Your task to perform on an android device: Add "usb-c to usb-b" to the cart on bestbuy.com, then select checkout. Image 0: 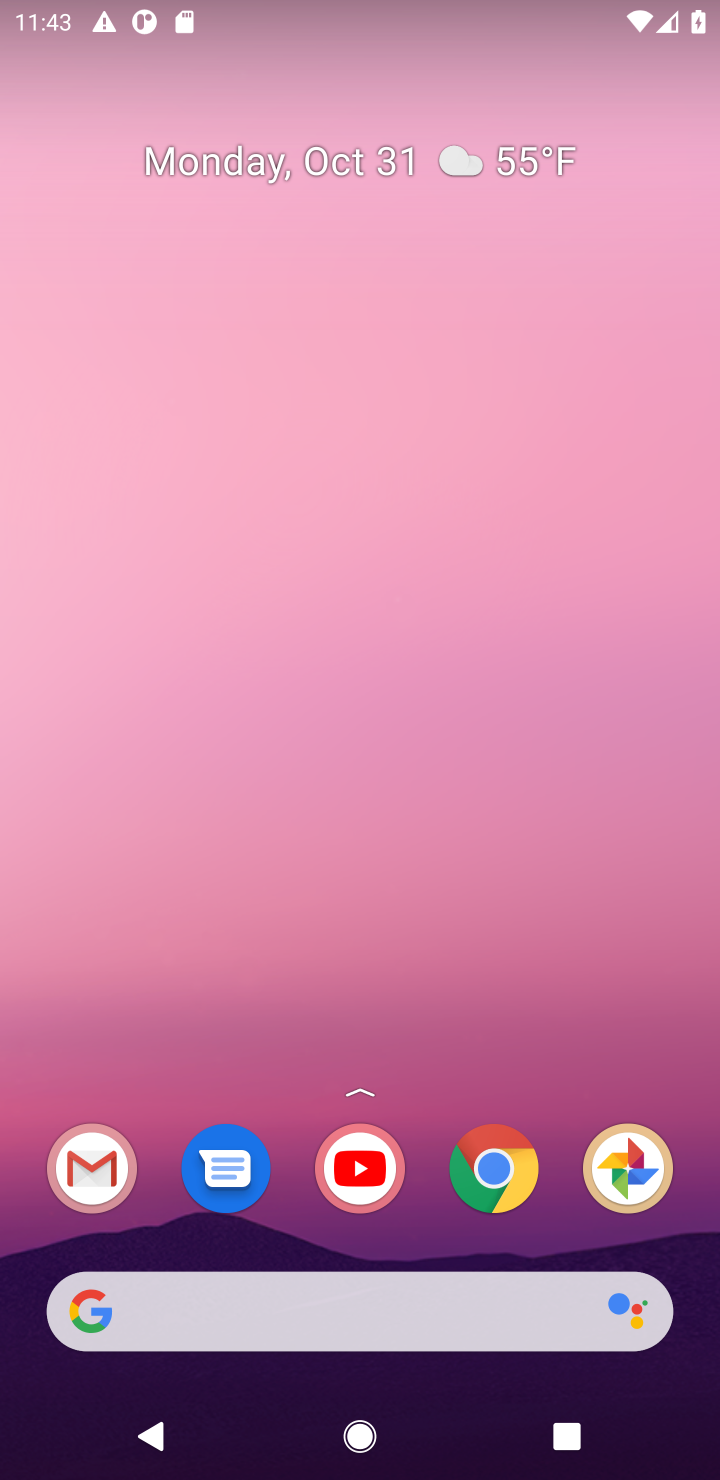
Step 0: click (482, 1174)
Your task to perform on an android device: Add "usb-c to usb-b" to the cart on bestbuy.com, then select checkout. Image 1: 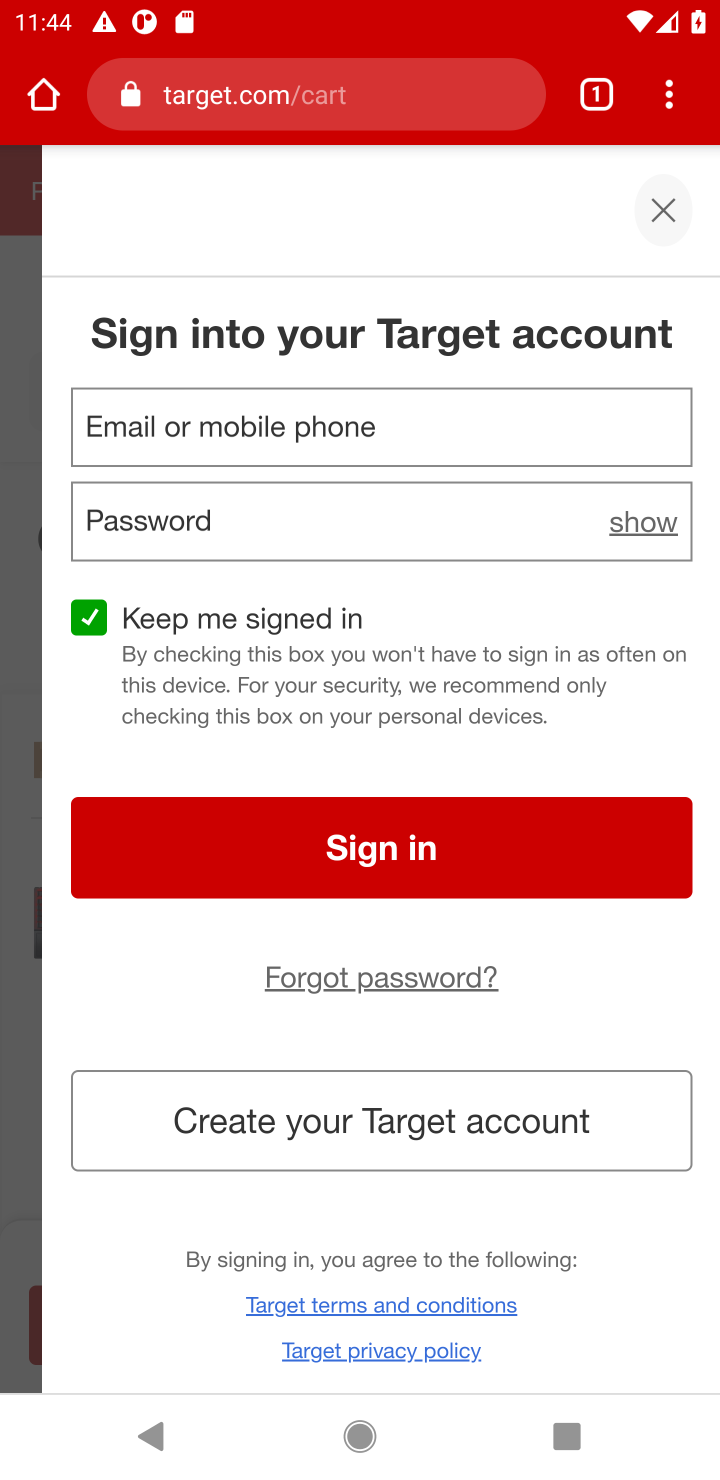
Step 1: click (229, 103)
Your task to perform on an android device: Add "usb-c to usb-b" to the cart on bestbuy.com, then select checkout. Image 2: 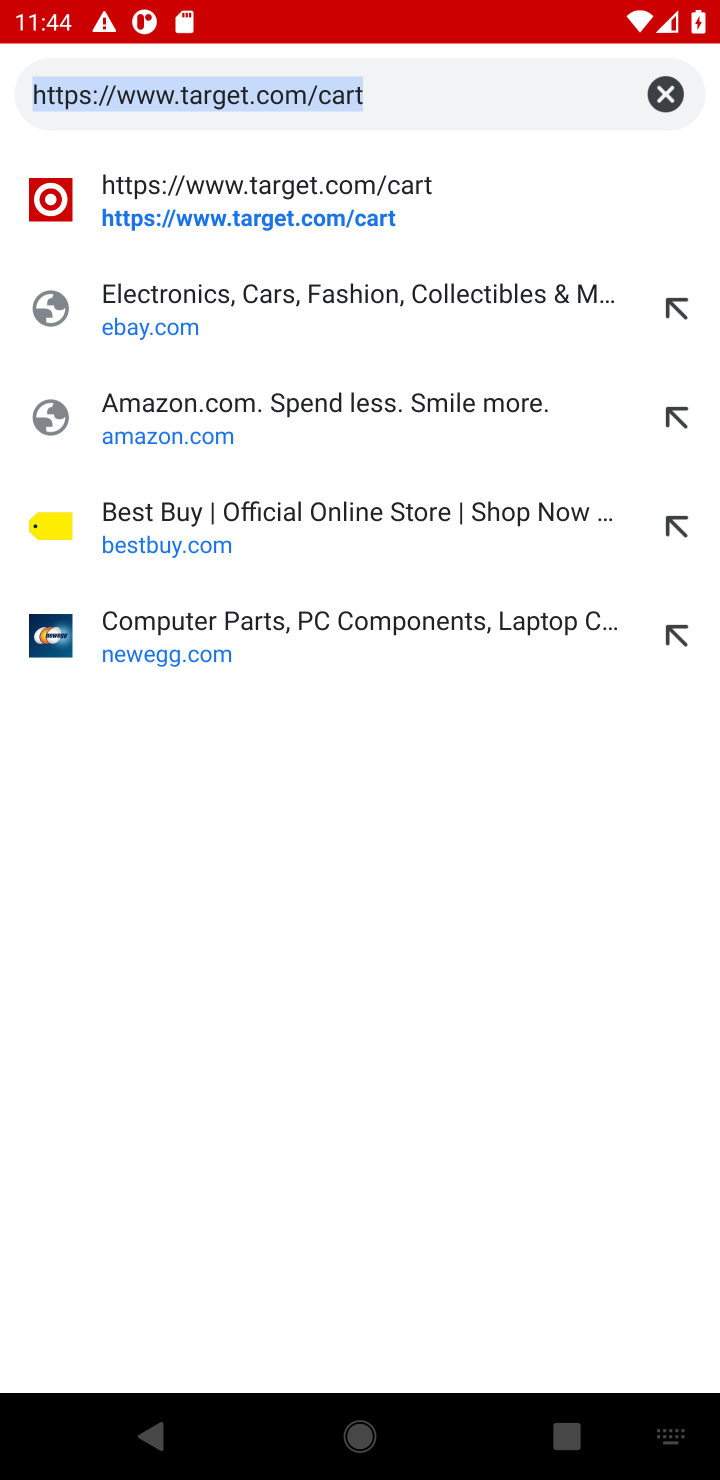
Step 2: type "bestbuy.com"
Your task to perform on an android device: Add "usb-c to usb-b" to the cart on bestbuy.com, then select checkout. Image 3: 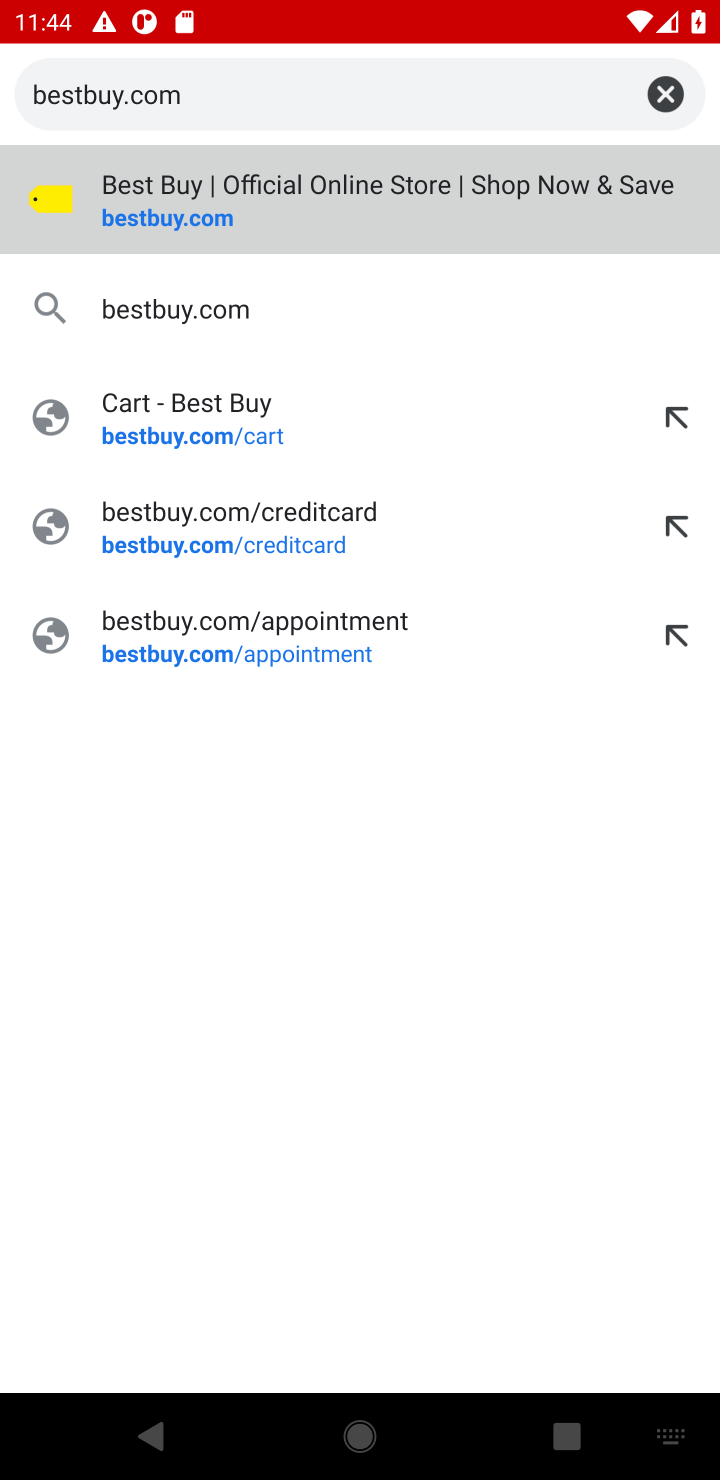
Step 3: press enter
Your task to perform on an android device: Add "usb-c to usb-b" to the cart on bestbuy.com, then select checkout. Image 4: 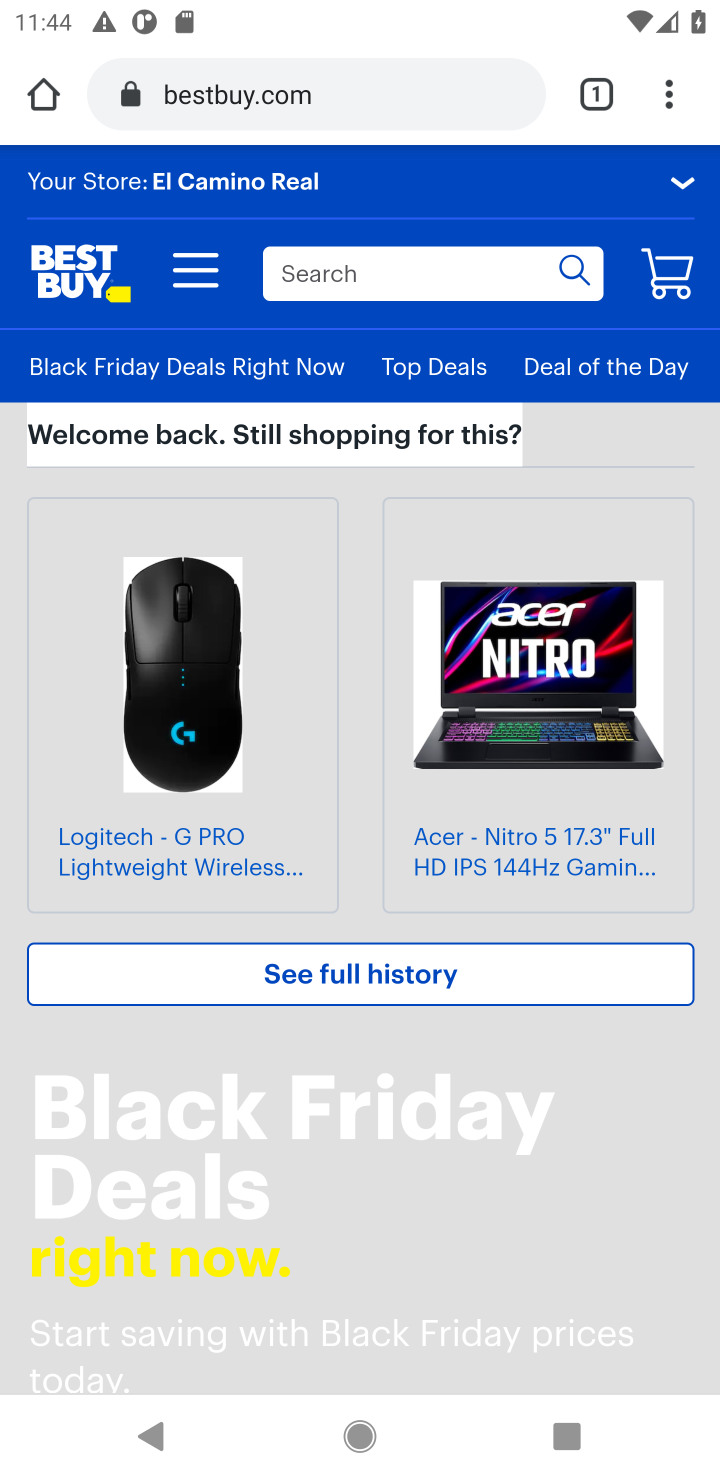
Step 4: click (374, 264)
Your task to perform on an android device: Add "usb-c to usb-b" to the cart on bestbuy.com, then select checkout. Image 5: 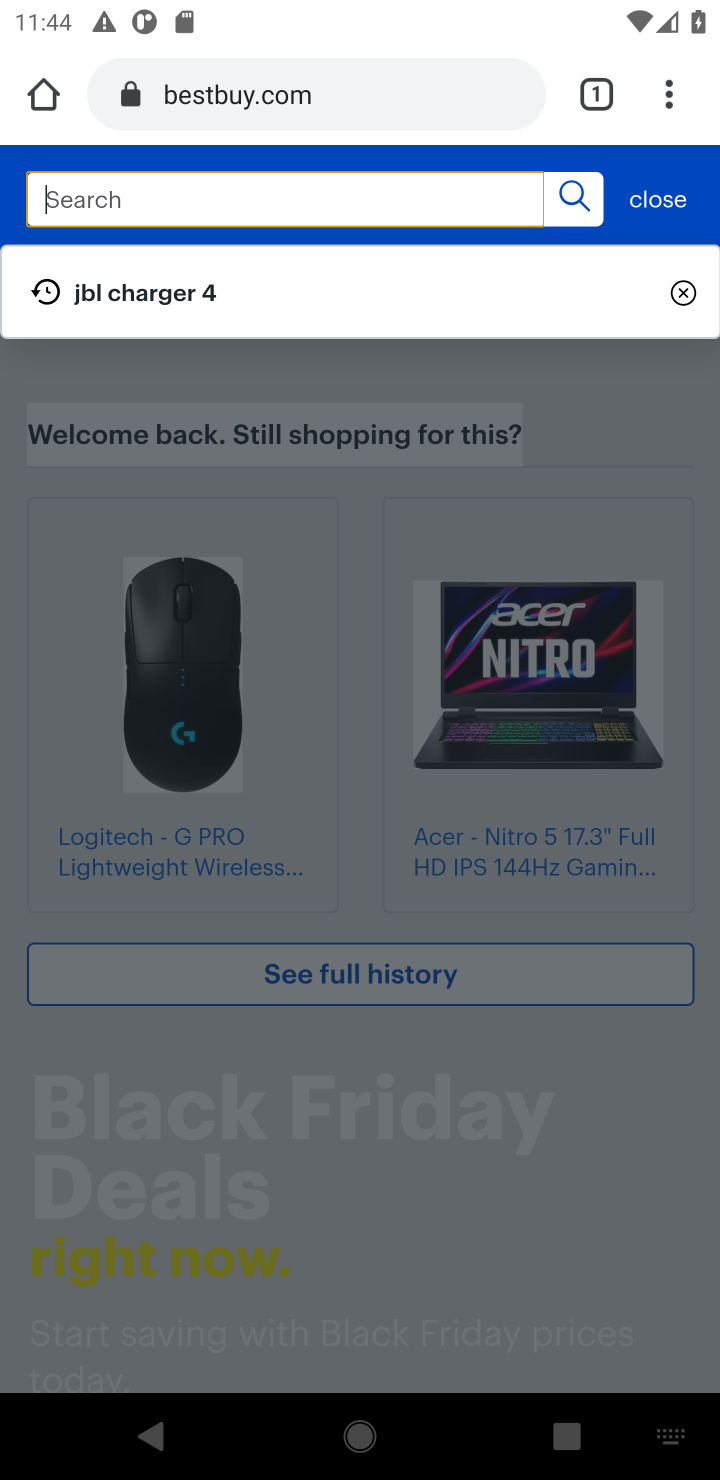
Step 5: click (374, 207)
Your task to perform on an android device: Add "usb-c to usb-b" to the cart on bestbuy.com, then select checkout. Image 6: 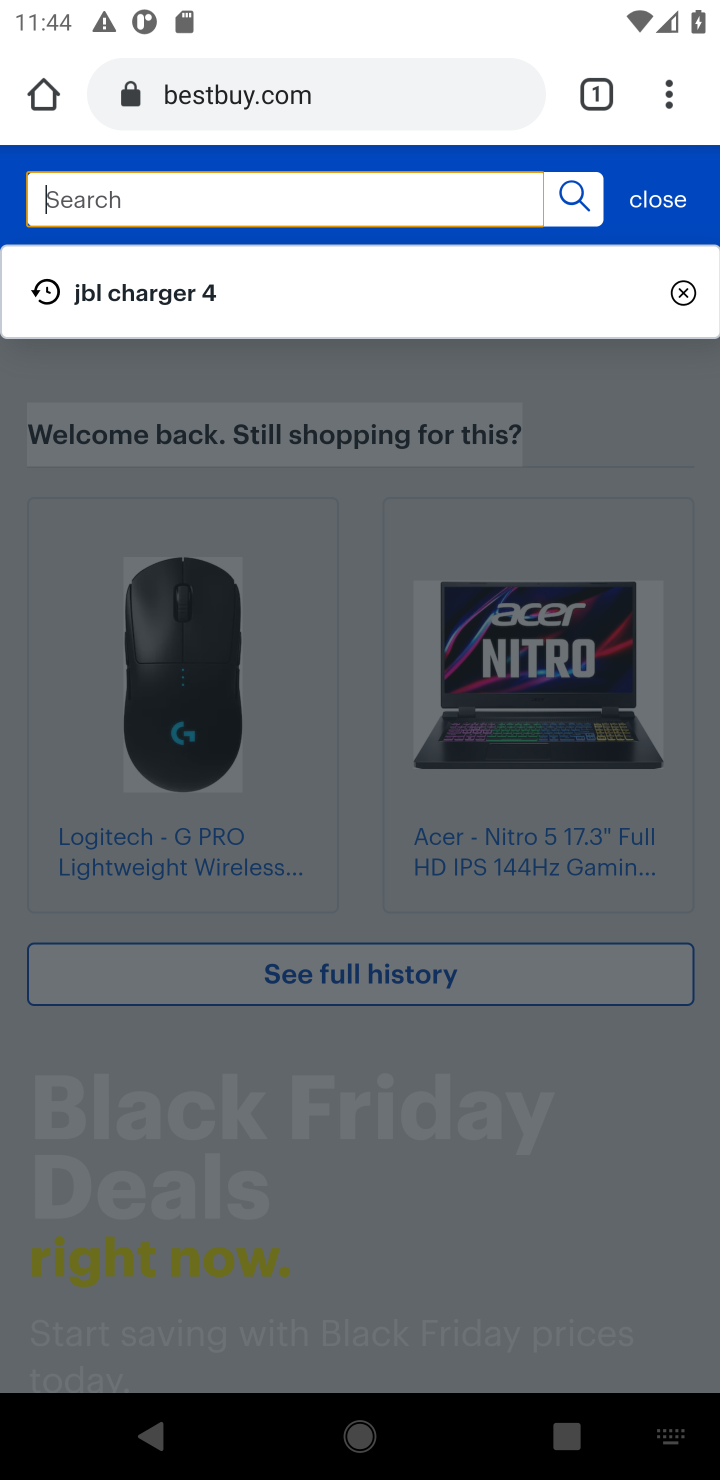
Step 6: type "usb-c to usb-b"
Your task to perform on an android device: Add "usb-c to usb-b" to the cart on bestbuy.com, then select checkout. Image 7: 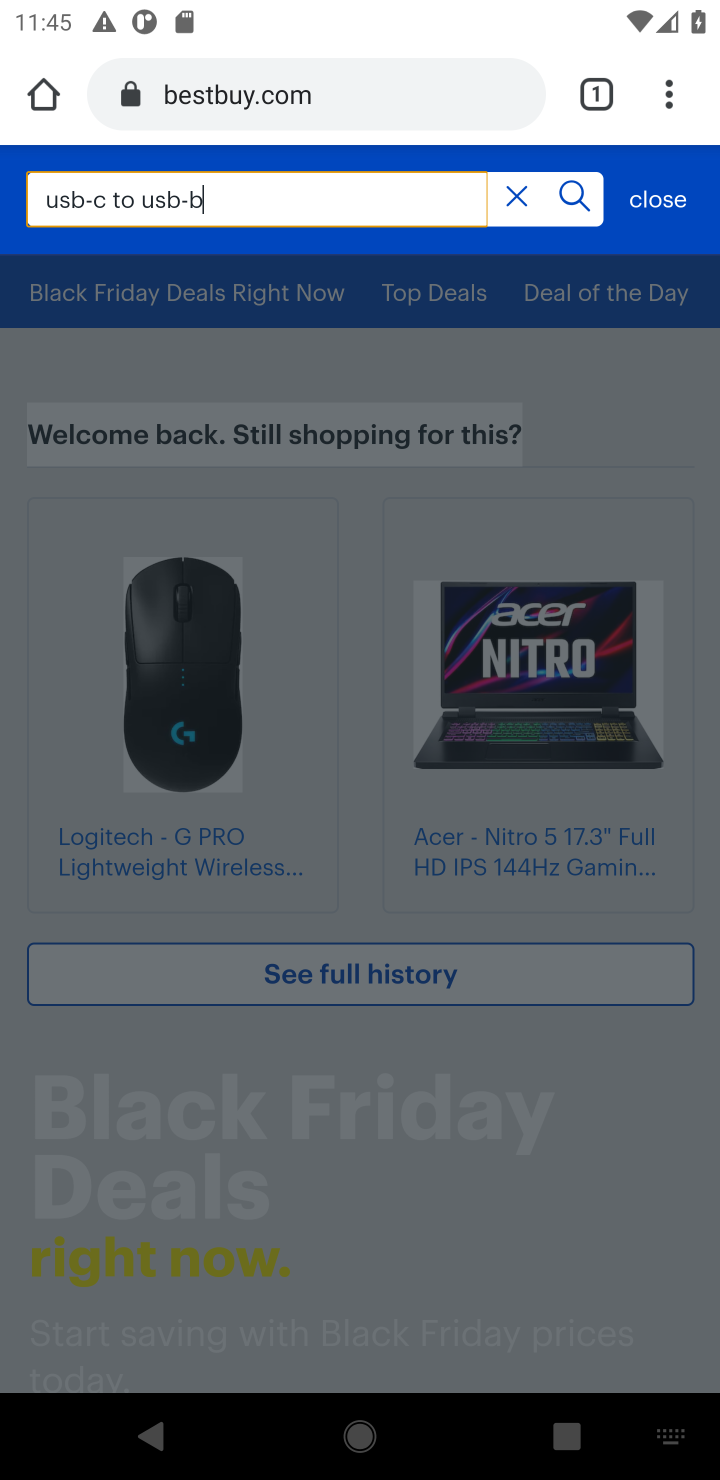
Step 7: click (582, 197)
Your task to perform on an android device: Add "usb-c to usb-b" to the cart on bestbuy.com, then select checkout. Image 8: 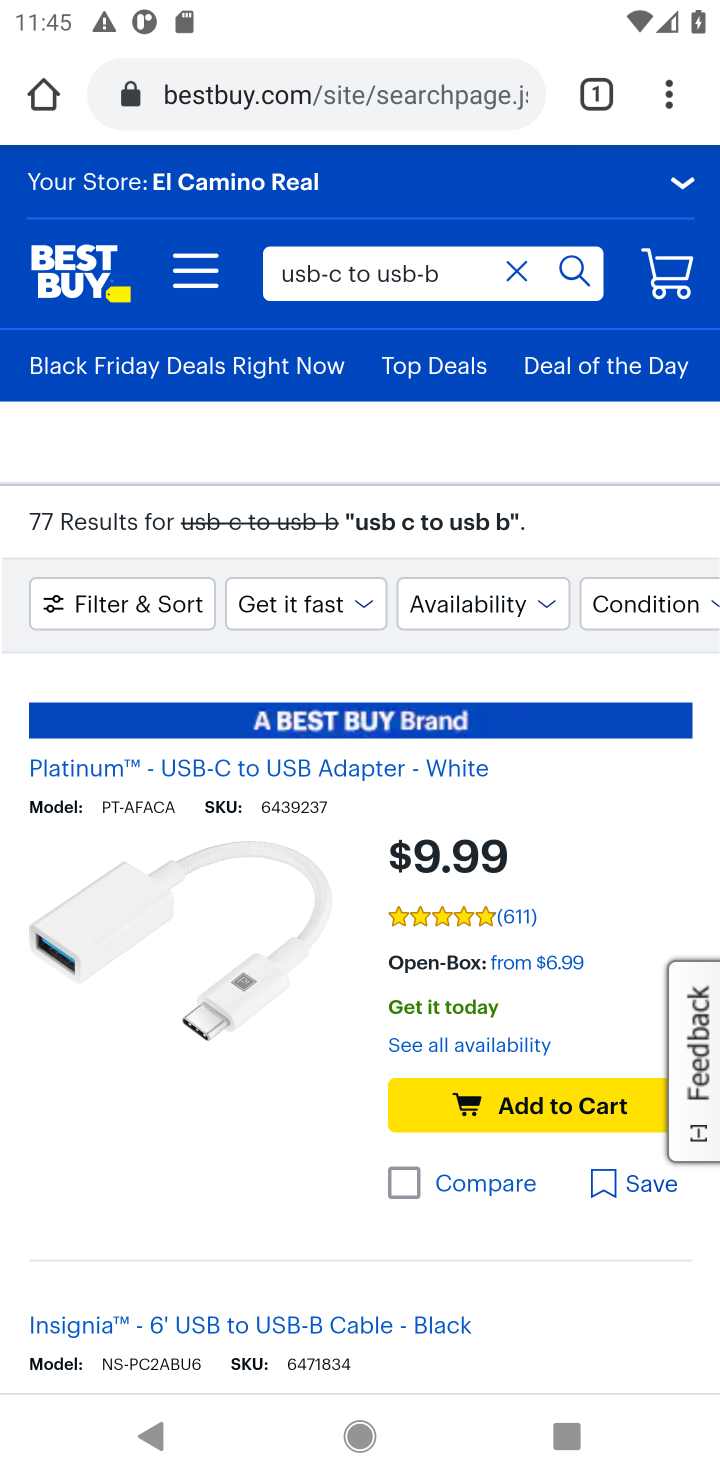
Step 8: click (146, 951)
Your task to perform on an android device: Add "usb-c to usb-b" to the cart on bestbuy.com, then select checkout. Image 9: 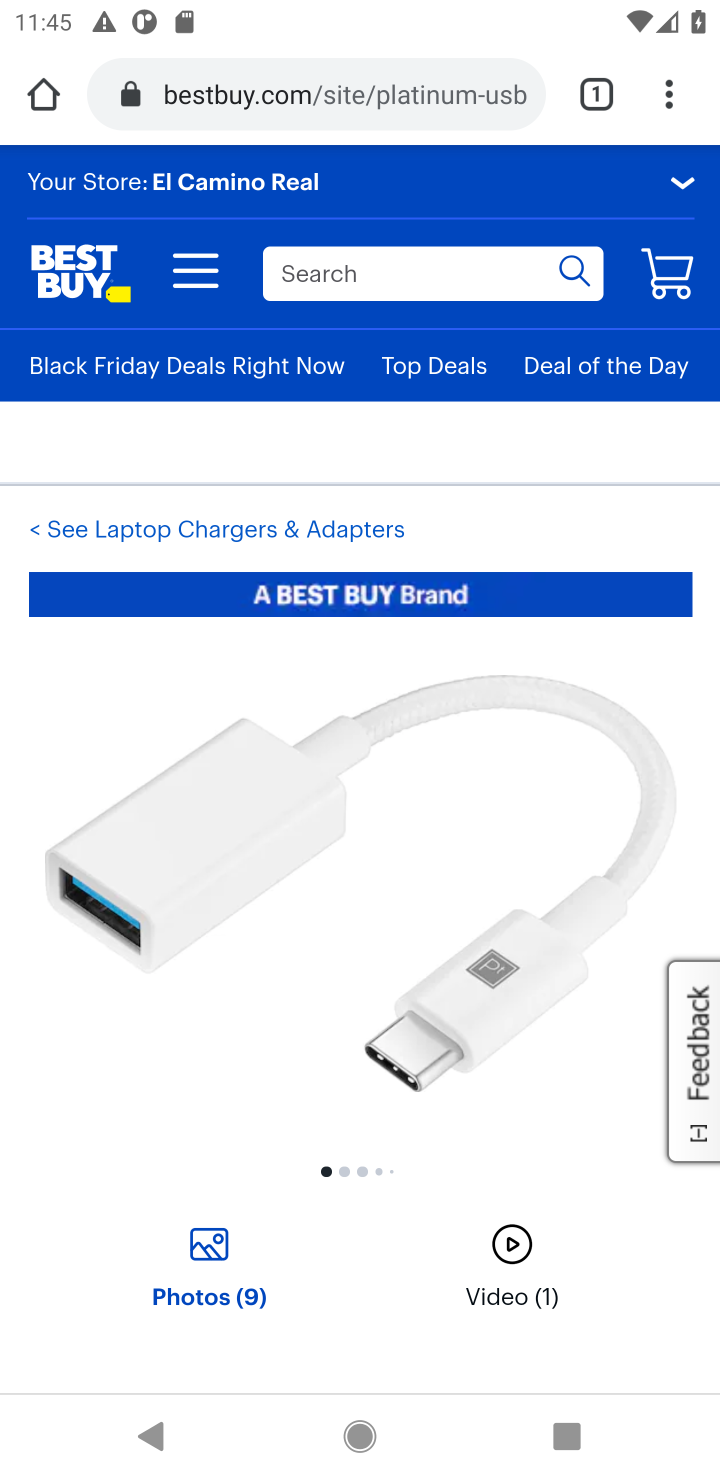
Step 9: drag from (418, 1340) to (375, 2)
Your task to perform on an android device: Add "usb-c to usb-b" to the cart on bestbuy.com, then select checkout. Image 10: 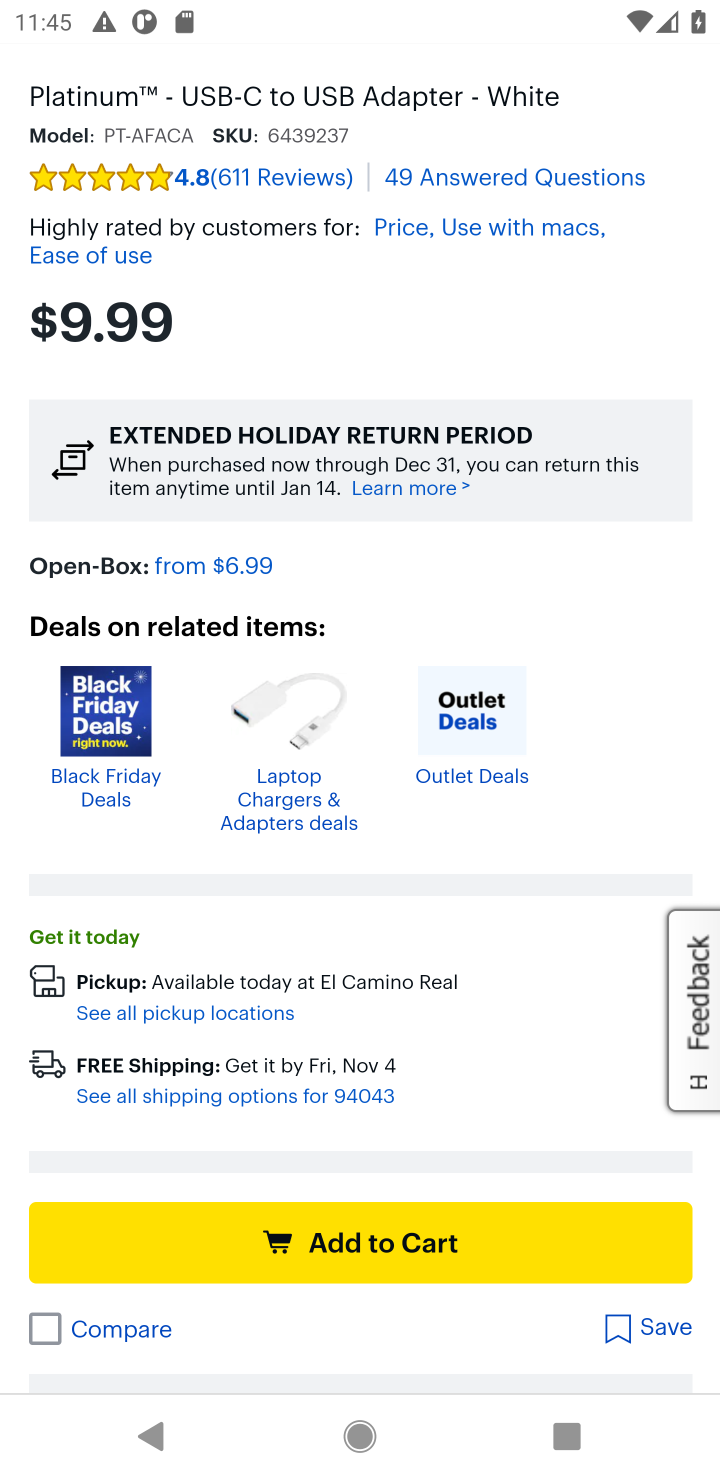
Step 10: click (343, 1253)
Your task to perform on an android device: Add "usb-c to usb-b" to the cart on bestbuy.com, then select checkout. Image 11: 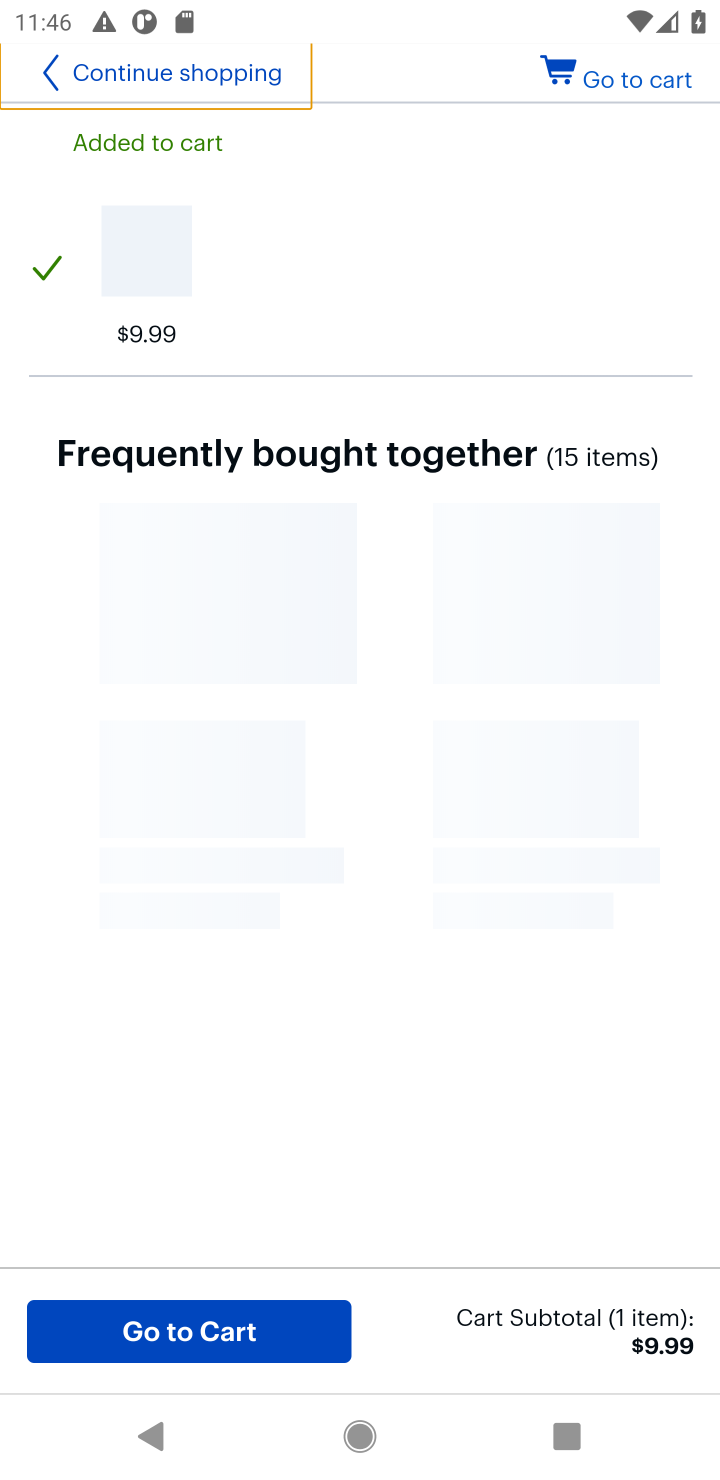
Step 11: click (268, 1328)
Your task to perform on an android device: Add "usb-c to usb-b" to the cart on bestbuy.com, then select checkout. Image 12: 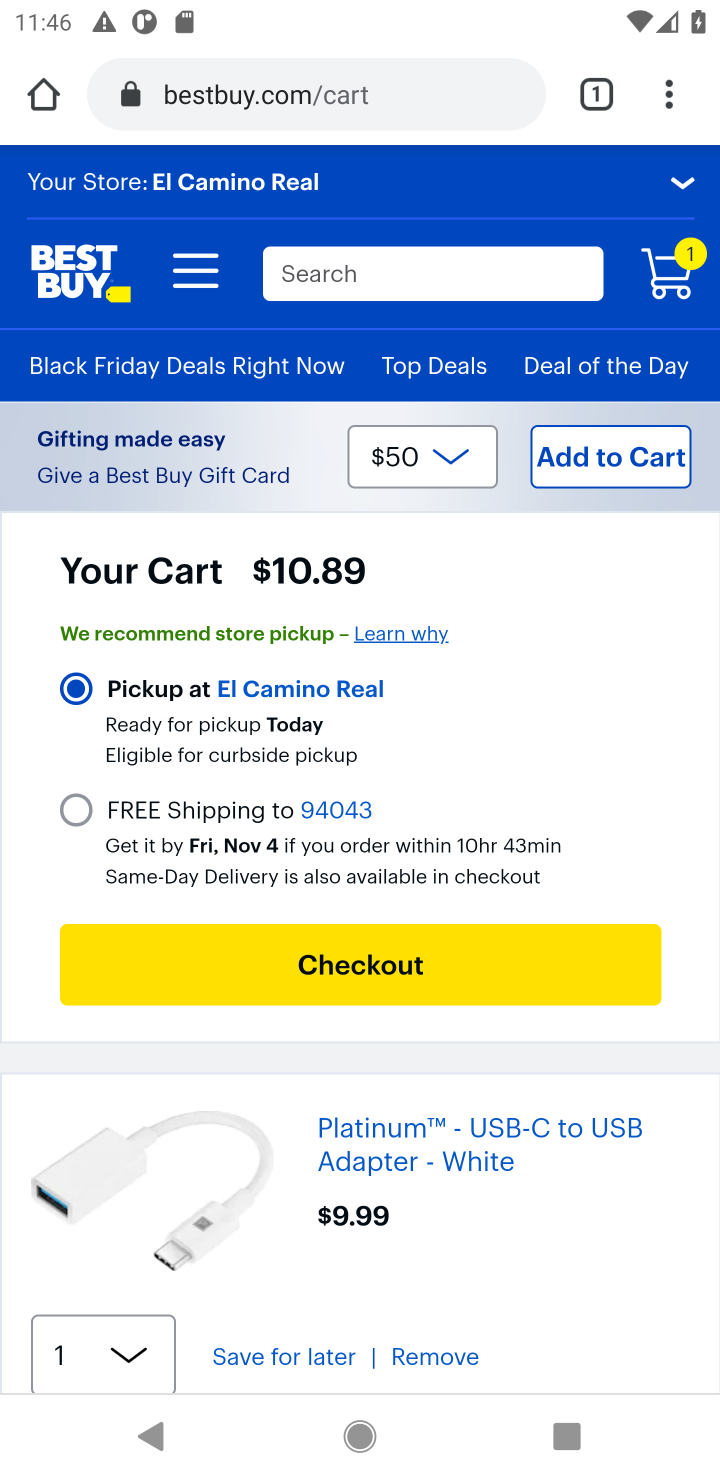
Step 12: click (433, 949)
Your task to perform on an android device: Add "usb-c to usb-b" to the cart on bestbuy.com, then select checkout. Image 13: 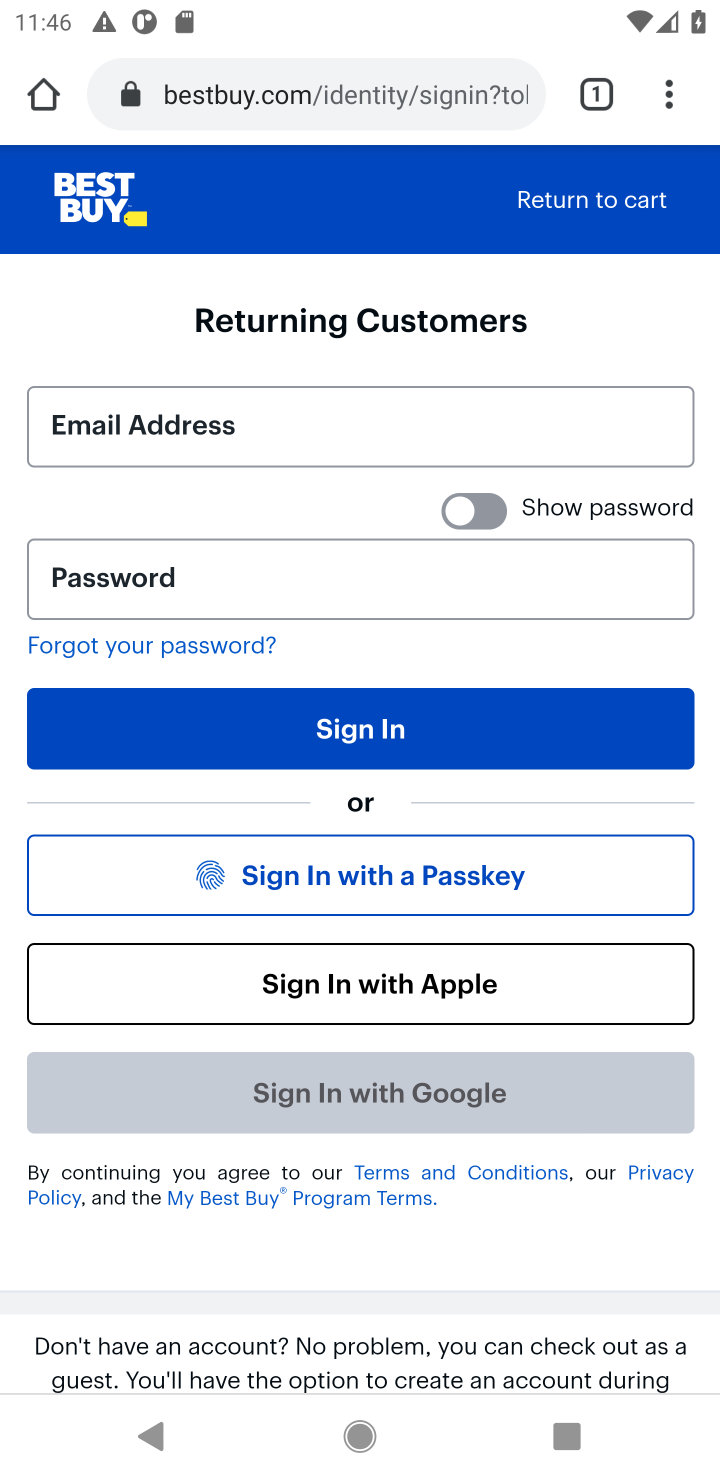
Step 13: task complete